Your task to perform on an android device: What's the weather going to be this weekend? Image 0: 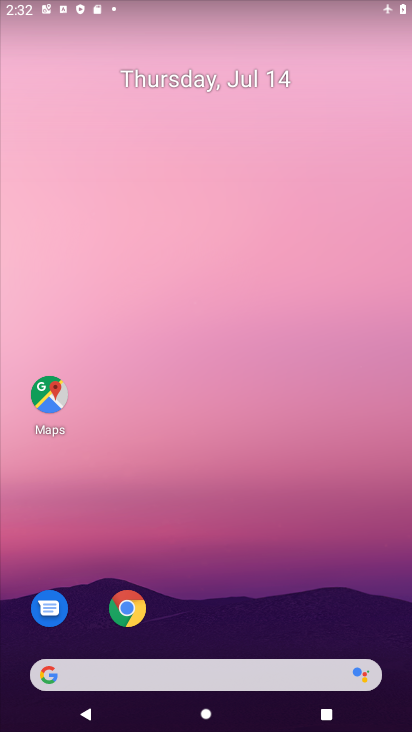
Step 0: drag from (6, 214) to (369, 228)
Your task to perform on an android device: What's the weather going to be this weekend? Image 1: 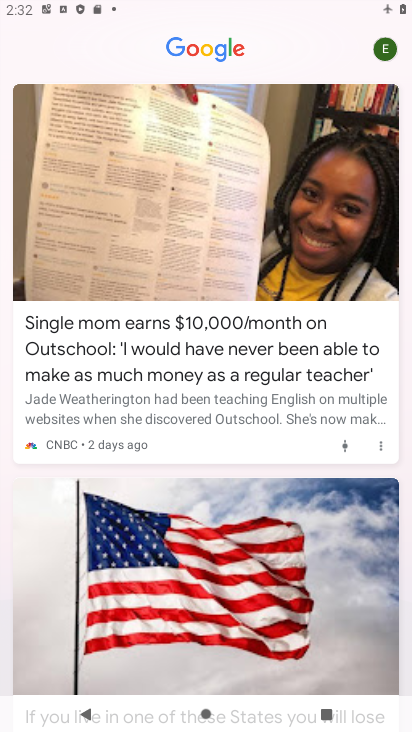
Step 1: task complete